Your task to perform on an android device: Show me the alarms in the clock app Image 0: 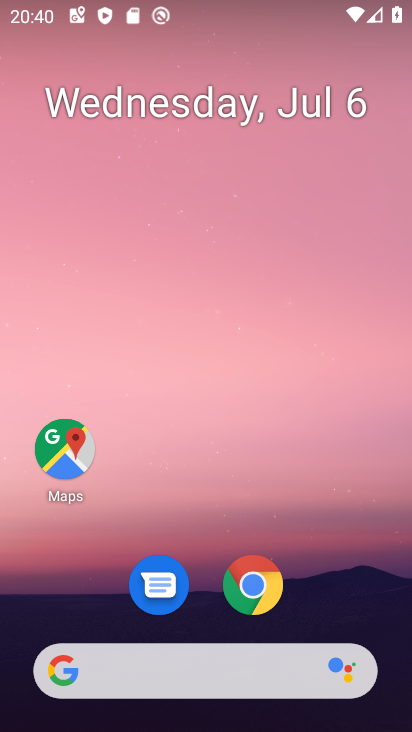
Step 0: drag from (215, 510) to (233, 10)
Your task to perform on an android device: Show me the alarms in the clock app Image 1: 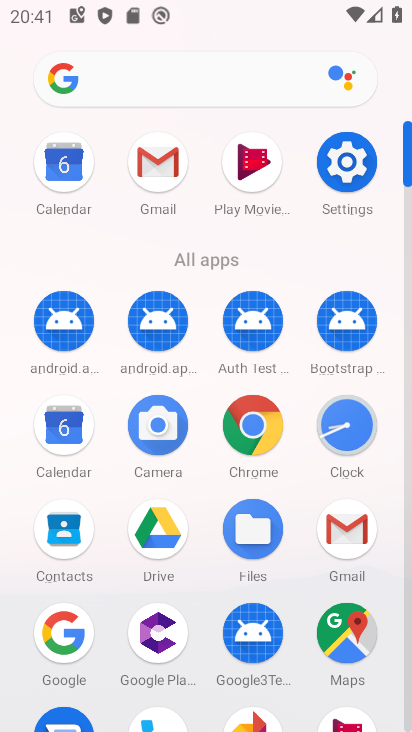
Step 1: click (347, 429)
Your task to perform on an android device: Show me the alarms in the clock app Image 2: 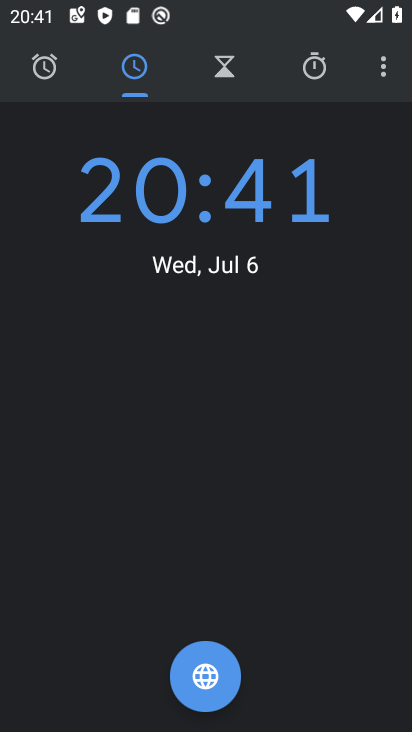
Step 2: click (42, 76)
Your task to perform on an android device: Show me the alarms in the clock app Image 3: 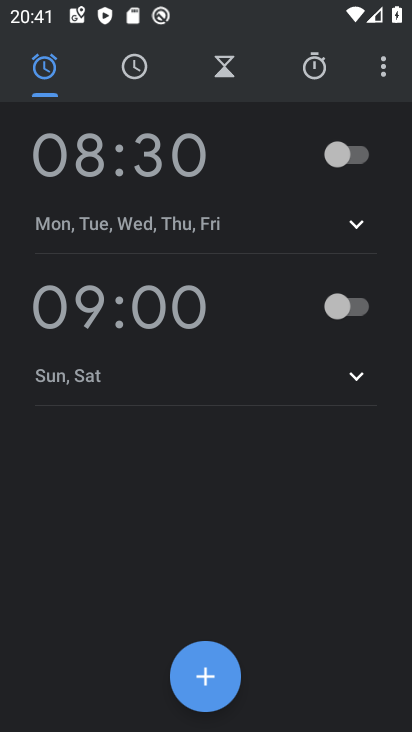
Step 3: task complete